Your task to perform on an android device: Open Google Maps Image 0: 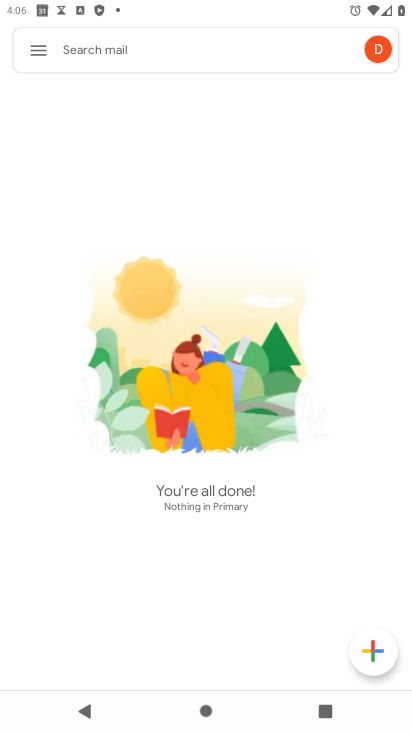
Step 0: press home button
Your task to perform on an android device: Open Google Maps Image 1: 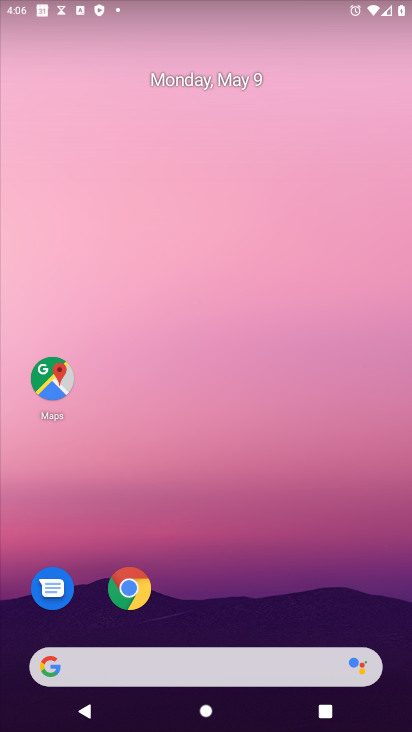
Step 1: click (53, 387)
Your task to perform on an android device: Open Google Maps Image 2: 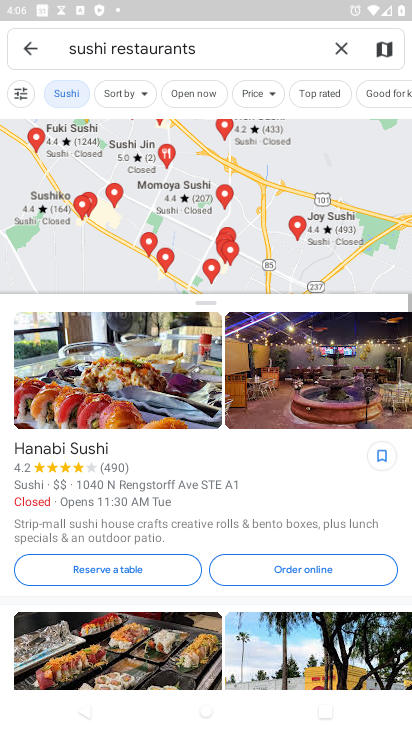
Step 2: task complete